Your task to perform on an android device: change the clock display to analog Image 0: 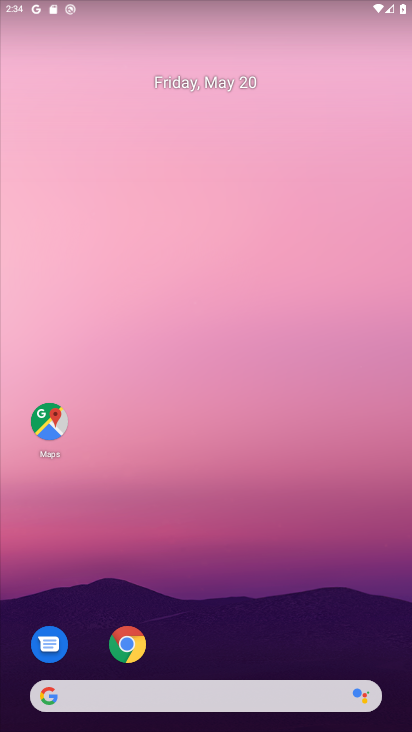
Step 0: drag from (217, 625) to (185, 252)
Your task to perform on an android device: change the clock display to analog Image 1: 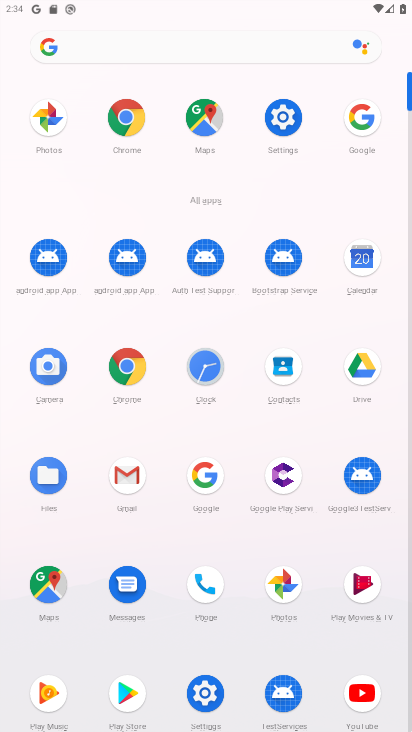
Step 1: click (193, 377)
Your task to perform on an android device: change the clock display to analog Image 2: 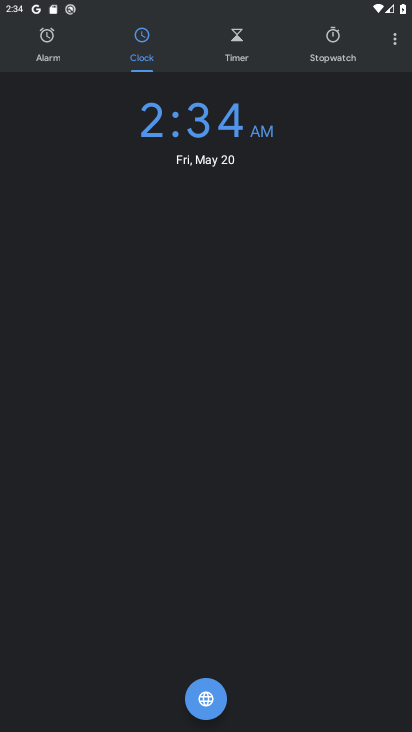
Step 2: click (399, 49)
Your task to perform on an android device: change the clock display to analog Image 3: 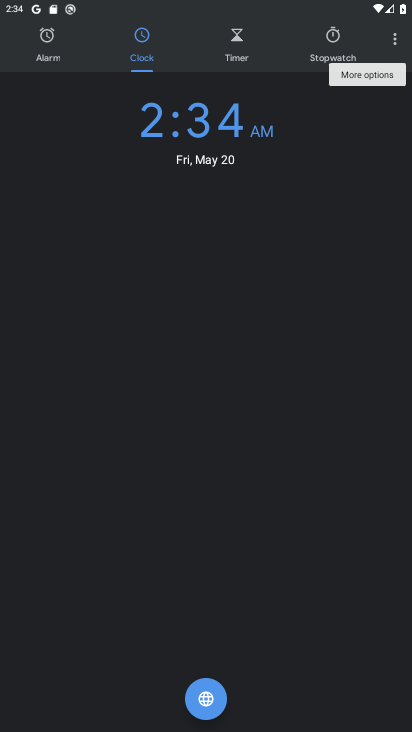
Step 3: click (394, 36)
Your task to perform on an android device: change the clock display to analog Image 4: 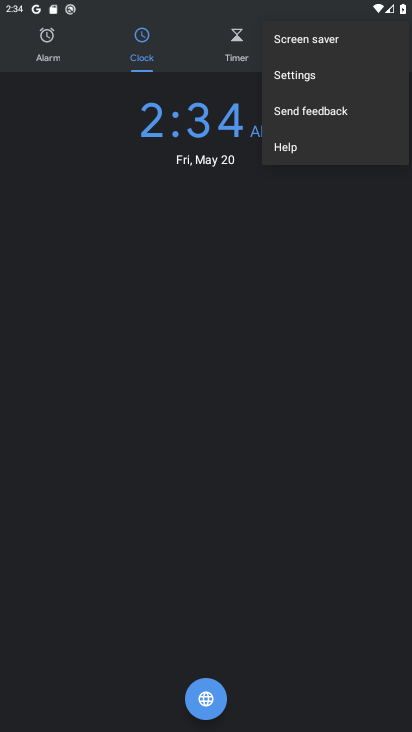
Step 4: click (345, 73)
Your task to perform on an android device: change the clock display to analog Image 5: 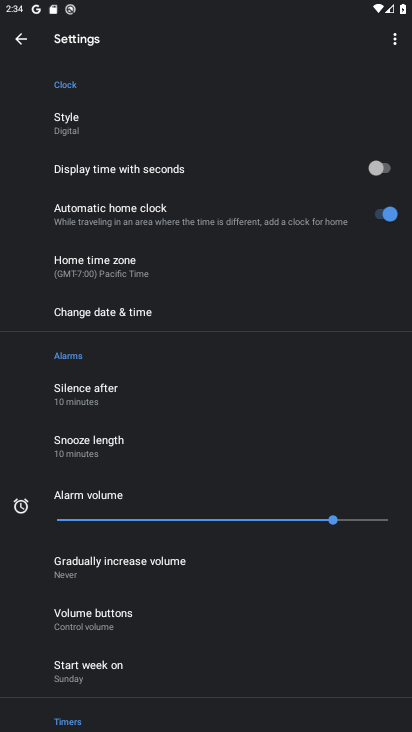
Step 5: click (115, 119)
Your task to perform on an android device: change the clock display to analog Image 6: 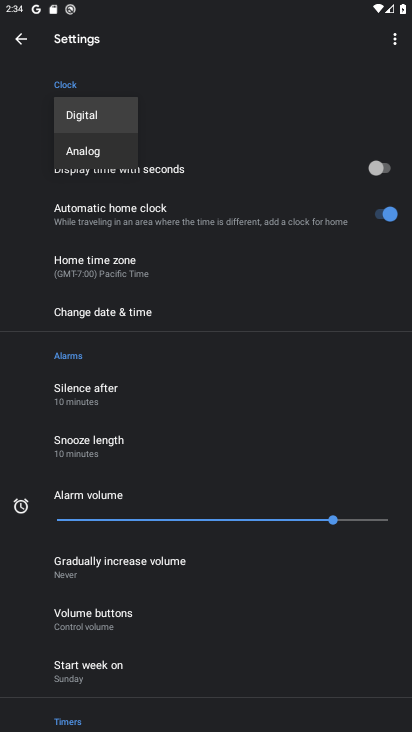
Step 6: click (121, 147)
Your task to perform on an android device: change the clock display to analog Image 7: 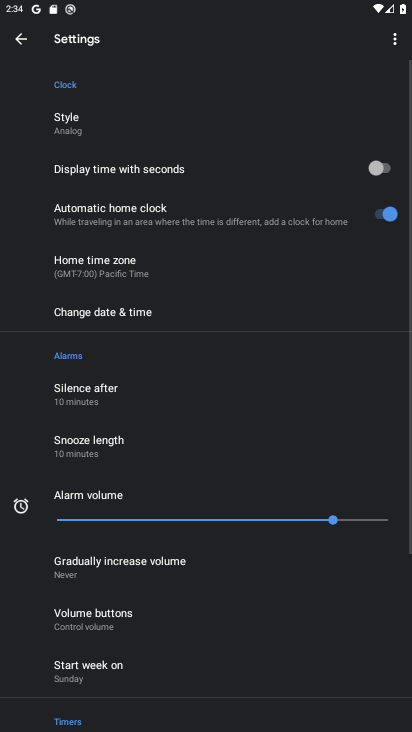
Step 7: task complete